Your task to perform on an android device: manage bookmarks in the chrome app Image 0: 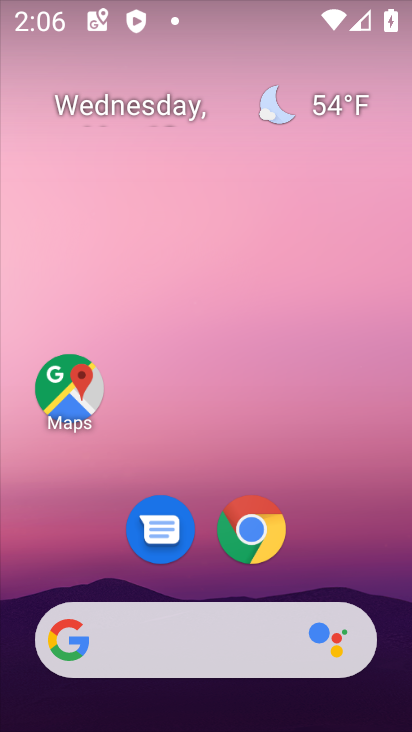
Step 0: click (245, 533)
Your task to perform on an android device: manage bookmarks in the chrome app Image 1: 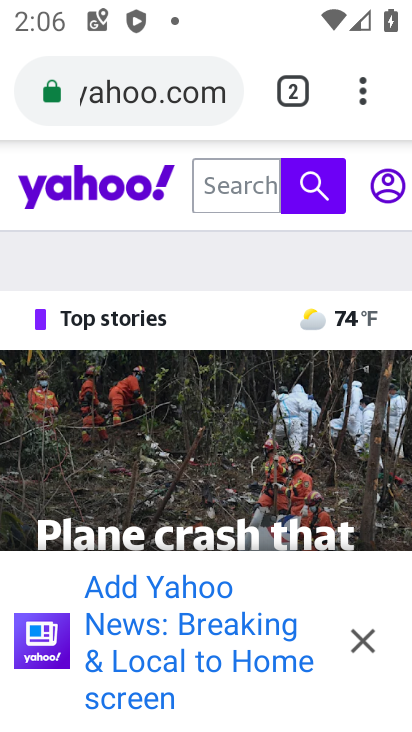
Step 1: task complete